Your task to perform on an android device: toggle translation in the chrome app Image 0: 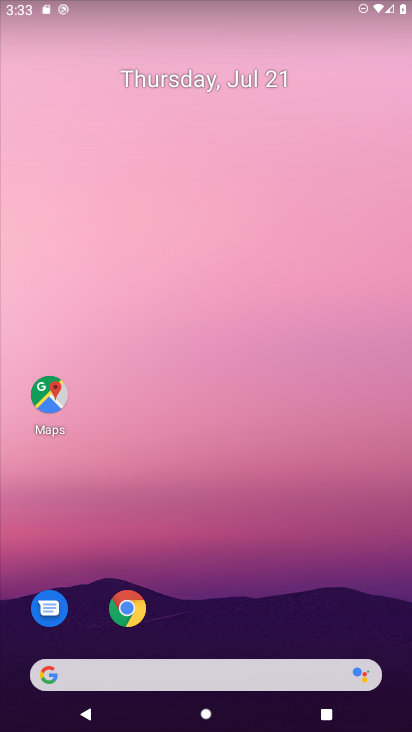
Step 0: click (122, 605)
Your task to perform on an android device: toggle translation in the chrome app Image 1: 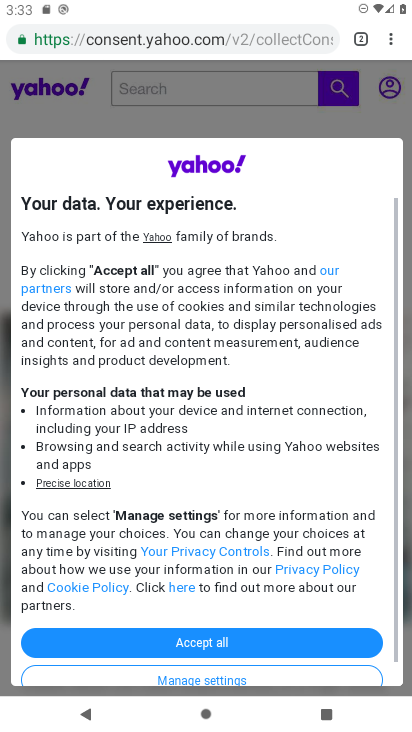
Step 1: click (385, 41)
Your task to perform on an android device: toggle translation in the chrome app Image 2: 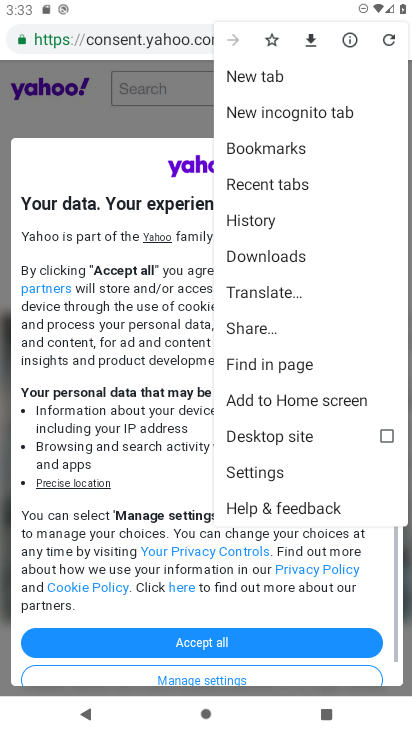
Step 2: click (274, 473)
Your task to perform on an android device: toggle translation in the chrome app Image 3: 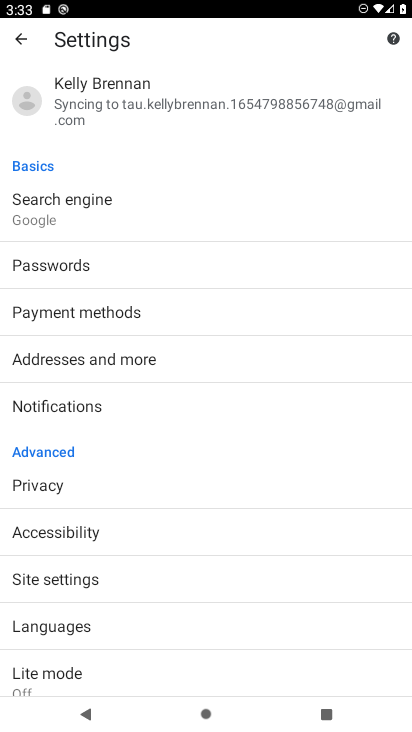
Step 3: click (69, 638)
Your task to perform on an android device: toggle translation in the chrome app Image 4: 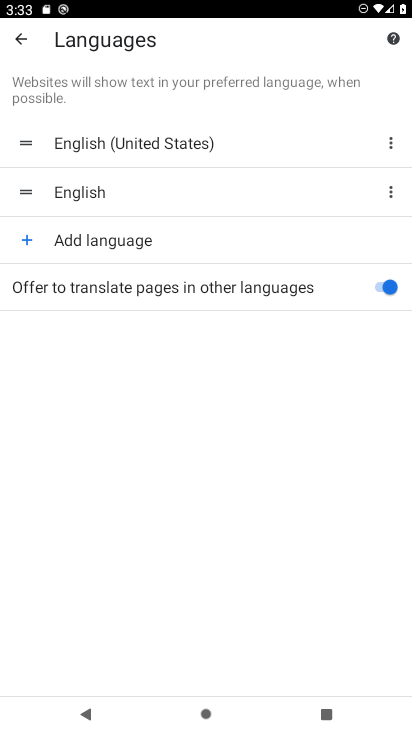
Step 4: click (373, 286)
Your task to perform on an android device: toggle translation in the chrome app Image 5: 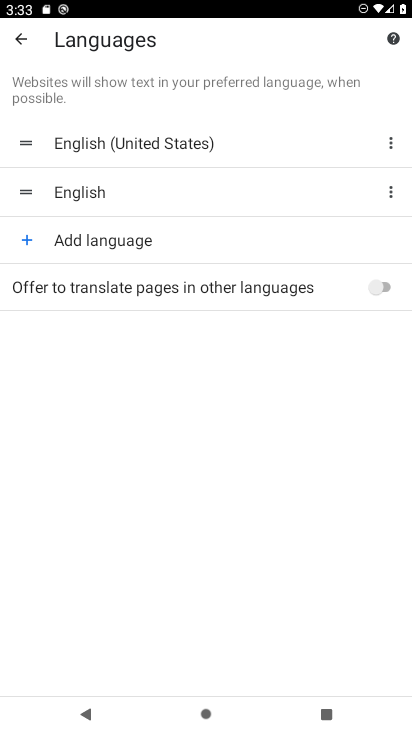
Step 5: task complete